Your task to perform on an android device: Show me productivity apps on the Play Store Image 0: 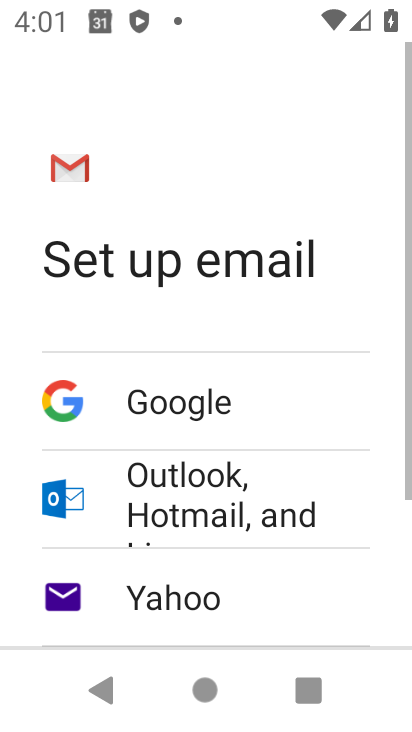
Step 0: press home button
Your task to perform on an android device: Show me productivity apps on the Play Store Image 1: 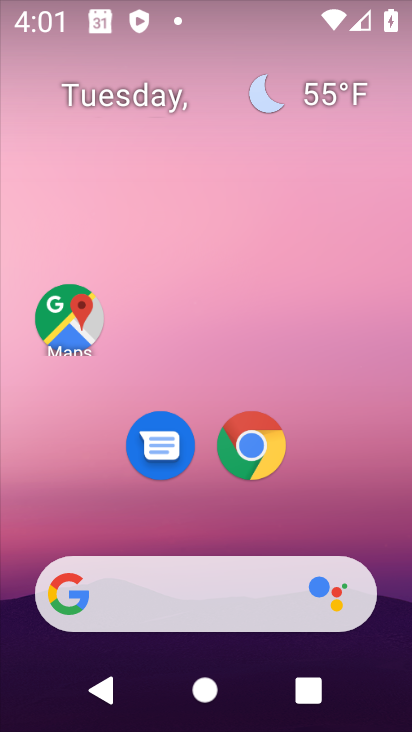
Step 1: drag from (176, 711) to (45, 19)
Your task to perform on an android device: Show me productivity apps on the Play Store Image 2: 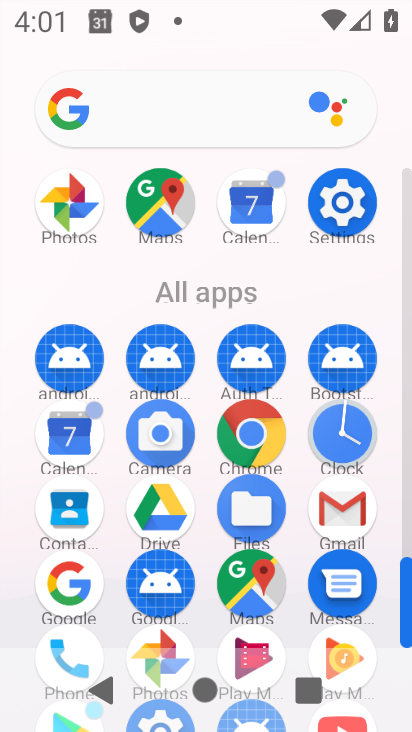
Step 2: drag from (115, 621) to (125, 161)
Your task to perform on an android device: Show me productivity apps on the Play Store Image 3: 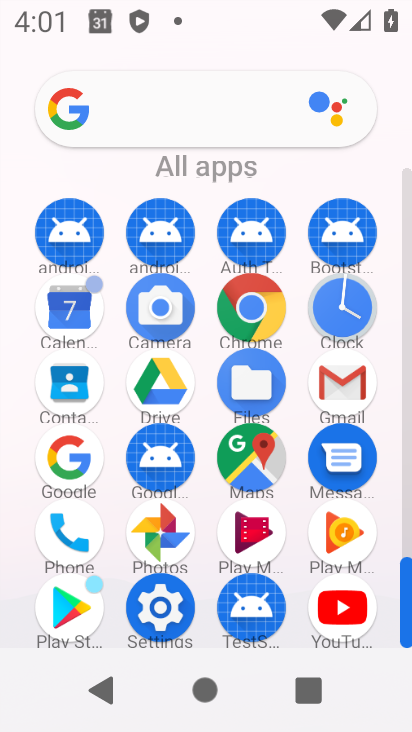
Step 3: click (72, 594)
Your task to perform on an android device: Show me productivity apps on the Play Store Image 4: 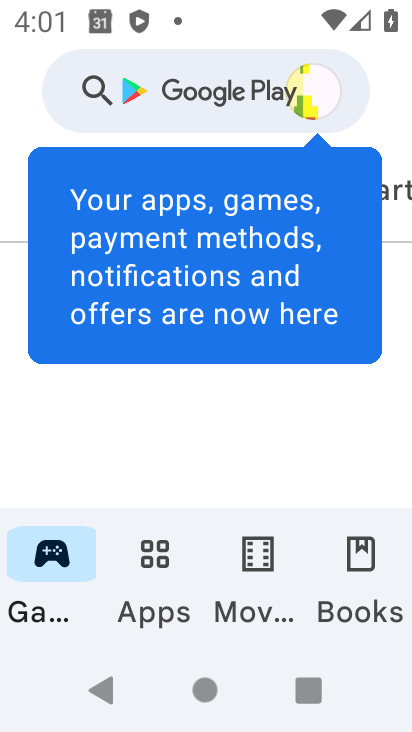
Step 4: click (133, 601)
Your task to perform on an android device: Show me productivity apps on the Play Store Image 5: 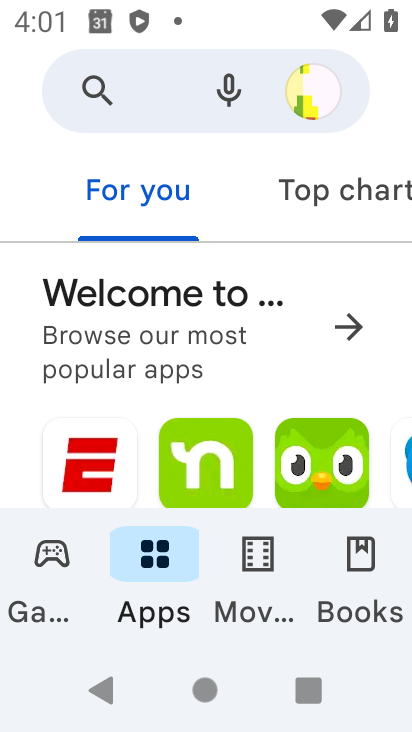
Step 5: drag from (381, 221) to (41, 219)
Your task to perform on an android device: Show me productivity apps on the Play Store Image 6: 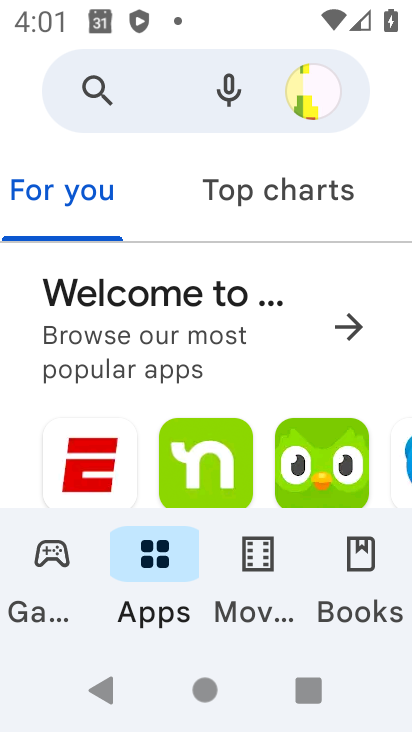
Step 6: drag from (382, 219) to (34, 193)
Your task to perform on an android device: Show me productivity apps on the Play Store Image 7: 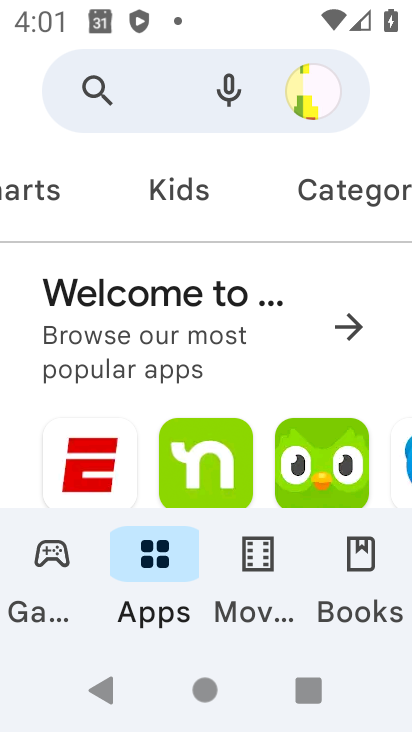
Step 7: click (344, 184)
Your task to perform on an android device: Show me productivity apps on the Play Store Image 8: 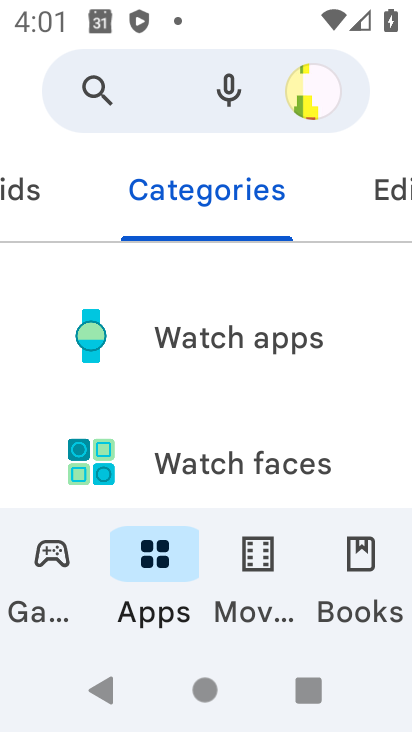
Step 8: drag from (270, 477) to (216, 2)
Your task to perform on an android device: Show me productivity apps on the Play Store Image 9: 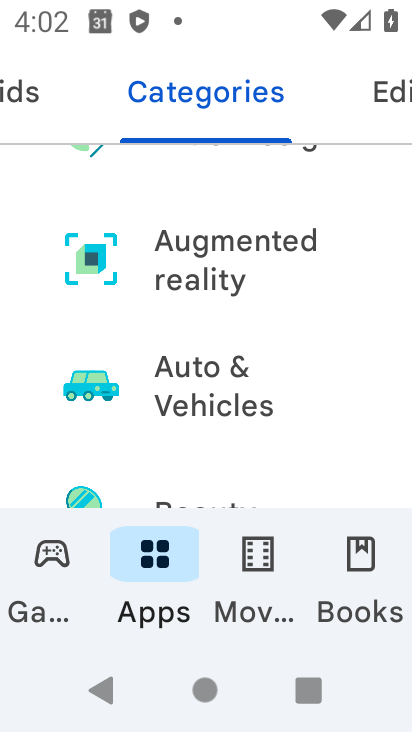
Step 9: drag from (248, 462) to (198, 13)
Your task to perform on an android device: Show me productivity apps on the Play Store Image 10: 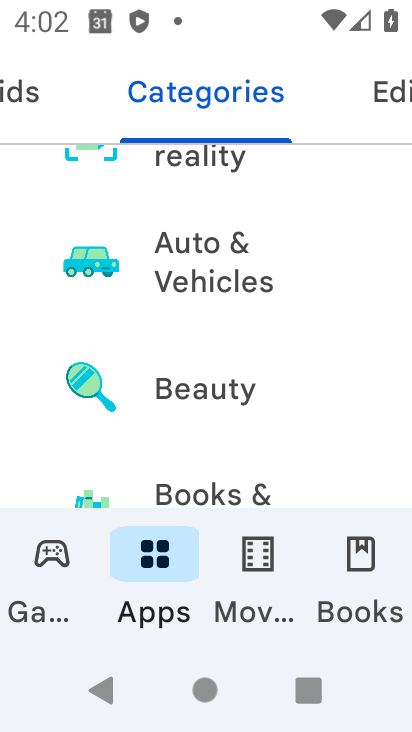
Step 10: drag from (274, 480) to (195, 3)
Your task to perform on an android device: Show me productivity apps on the Play Store Image 11: 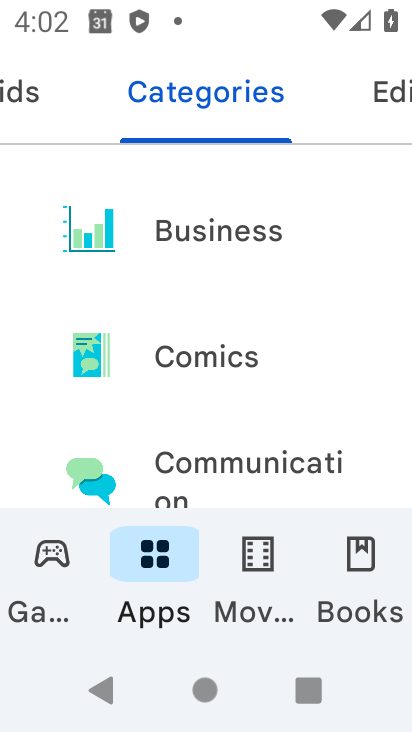
Step 11: drag from (311, 437) to (262, 40)
Your task to perform on an android device: Show me productivity apps on the Play Store Image 12: 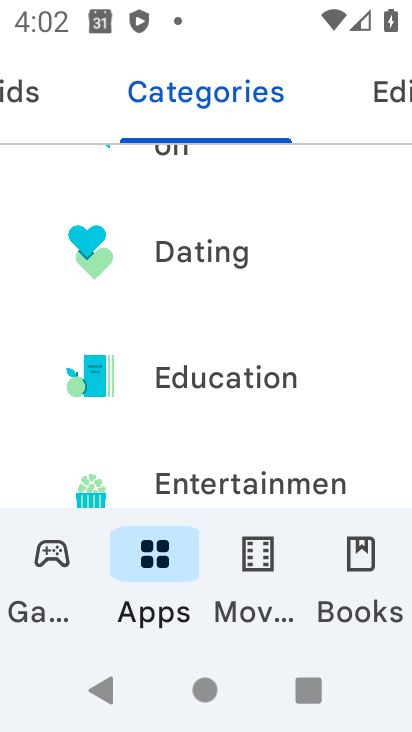
Step 12: drag from (315, 464) to (258, 91)
Your task to perform on an android device: Show me productivity apps on the Play Store Image 13: 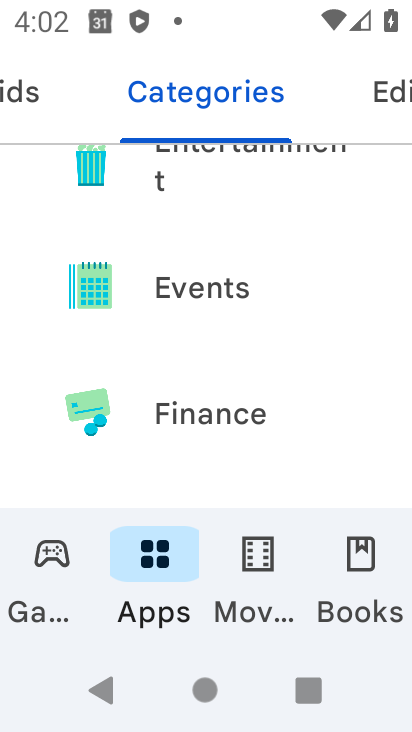
Step 13: drag from (267, 468) to (227, 97)
Your task to perform on an android device: Show me productivity apps on the Play Store Image 14: 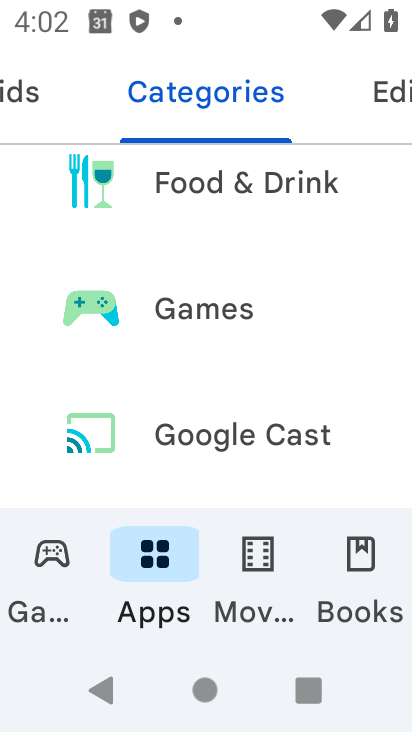
Step 14: drag from (328, 474) to (294, 83)
Your task to perform on an android device: Show me productivity apps on the Play Store Image 15: 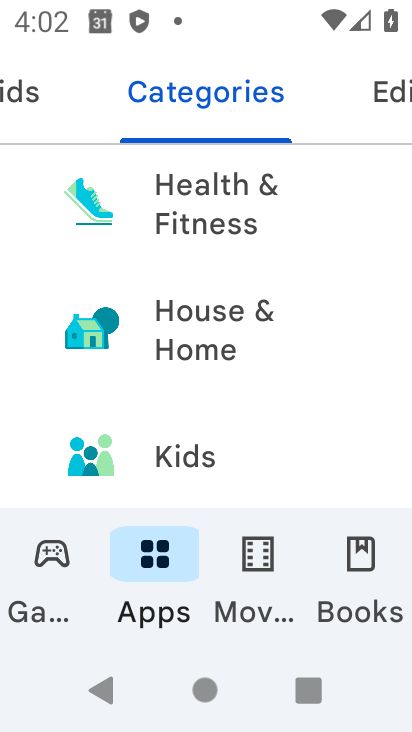
Step 15: drag from (328, 469) to (333, 105)
Your task to perform on an android device: Show me productivity apps on the Play Store Image 16: 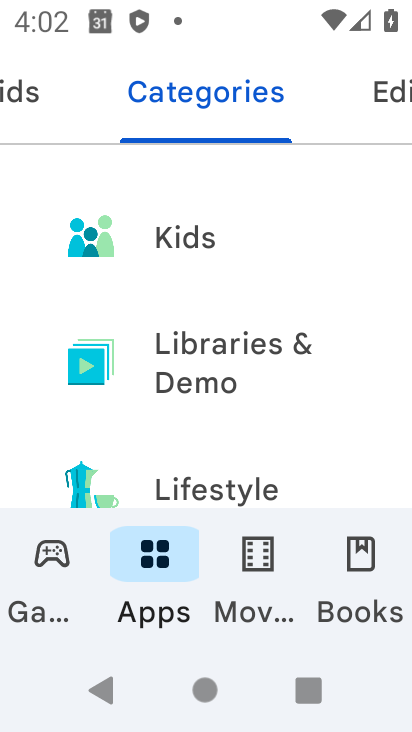
Step 16: drag from (310, 475) to (264, 73)
Your task to perform on an android device: Show me productivity apps on the Play Store Image 17: 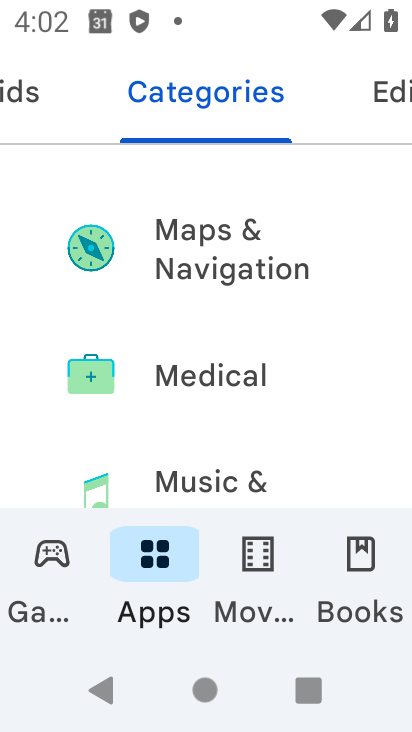
Step 17: drag from (323, 492) to (309, 141)
Your task to perform on an android device: Show me productivity apps on the Play Store Image 18: 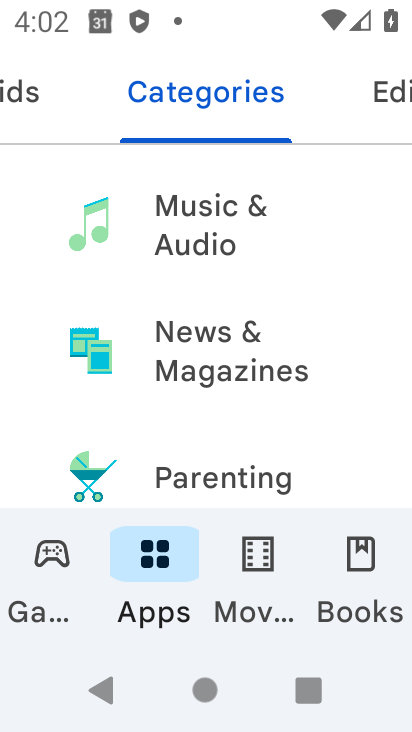
Step 18: drag from (327, 471) to (307, 124)
Your task to perform on an android device: Show me productivity apps on the Play Store Image 19: 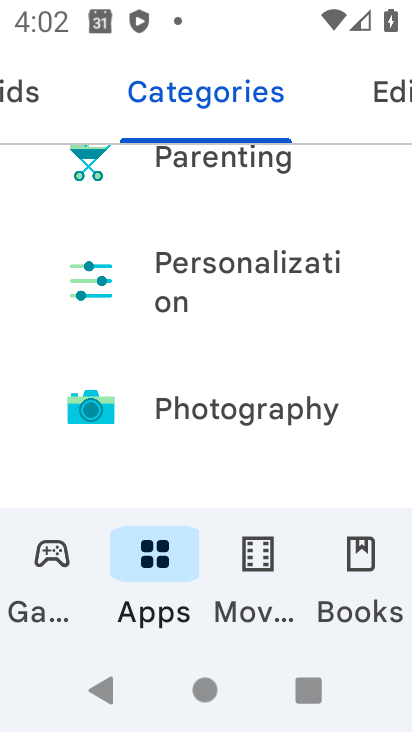
Step 19: drag from (303, 482) to (308, 175)
Your task to perform on an android device: Show me productivity apps on the Play Store Image 20: 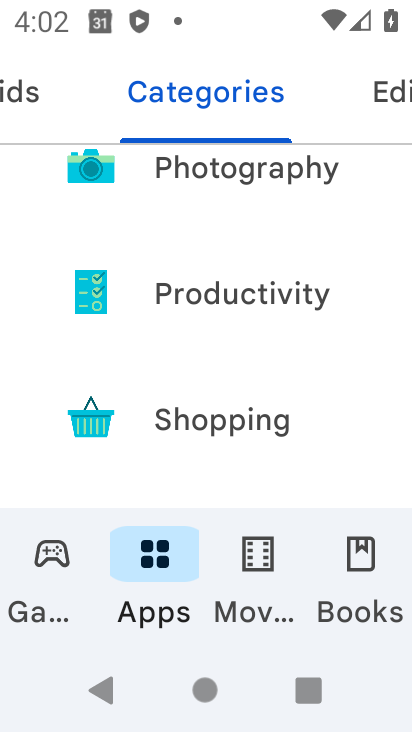
Step 20: click (290, 305)
Your task to perform on an android device: Show me productivity apps on the Play Store Image 21: 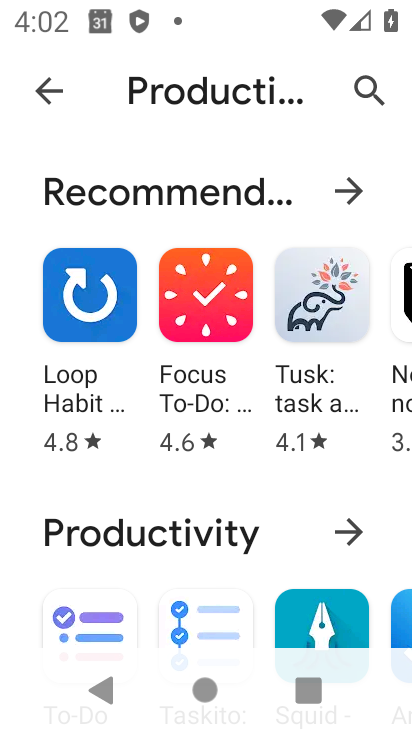
Step 21: task complete